Your task to perform on an android device: See recent photos Image 0: 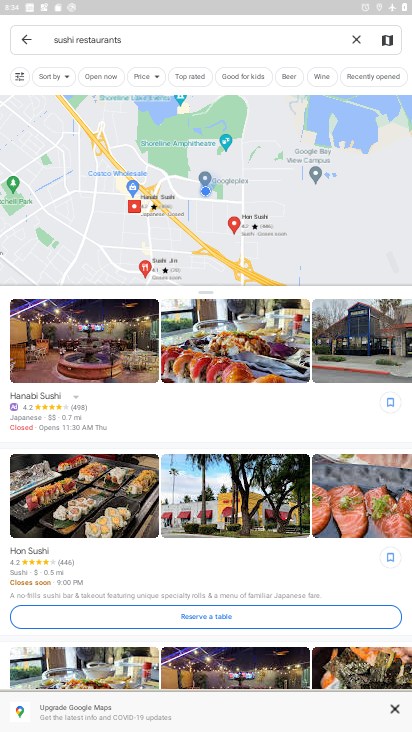
Step 0: press home button
Your task to perform on an android device: See recent photos Image 1: 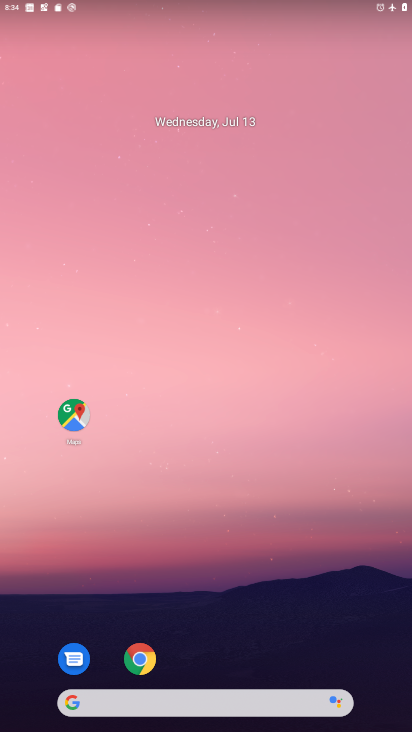
Step 1: drag from (184, 542) to (194, 187)
Your task to perform on an android device: See recent photos Image 2: 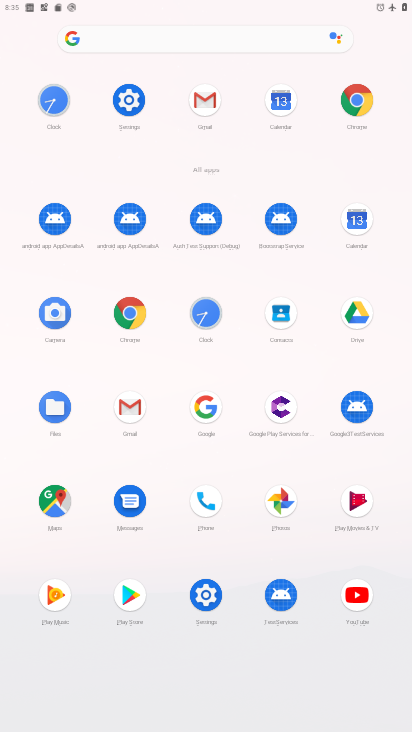
Step 2: click (278, 502)
Your task to perform on an android device: See recent photos Image 3: 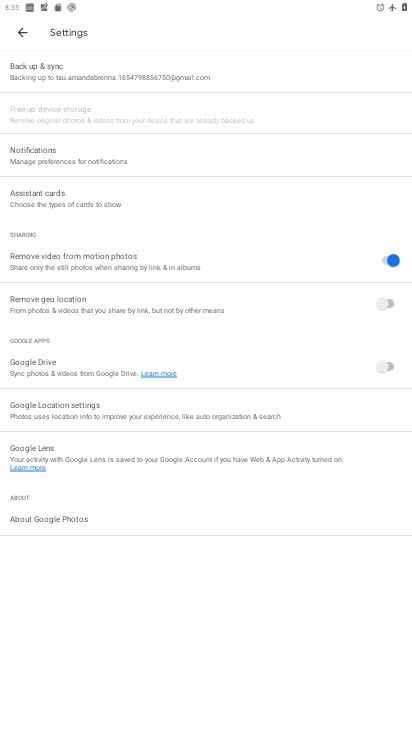
Step 3: click (22, 31)
Your task to perform on an android device: See recent photos Image 4: 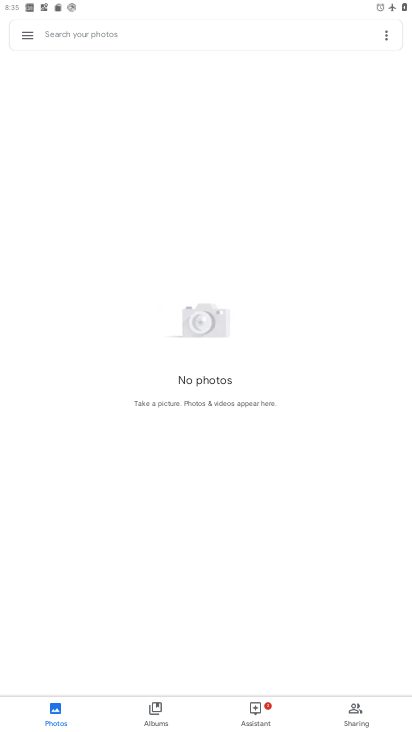
Step 4: task complete